Your task to perform on an android device: Open my contact list Image 0: 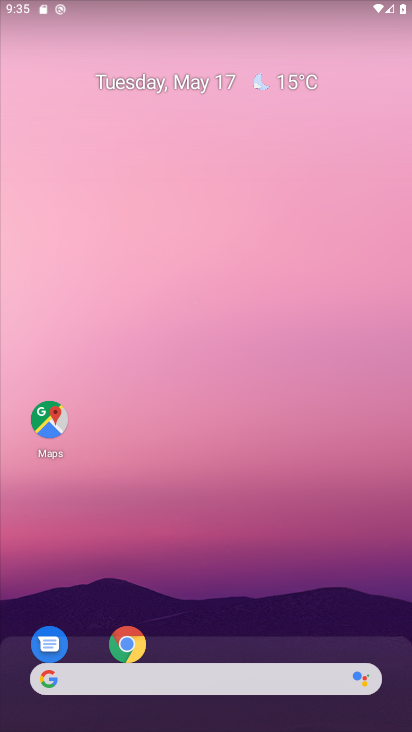
Step 0: drag from (244, 623) to (263, 160)
Your task to perform on an android device: Open my contact list Image 1: 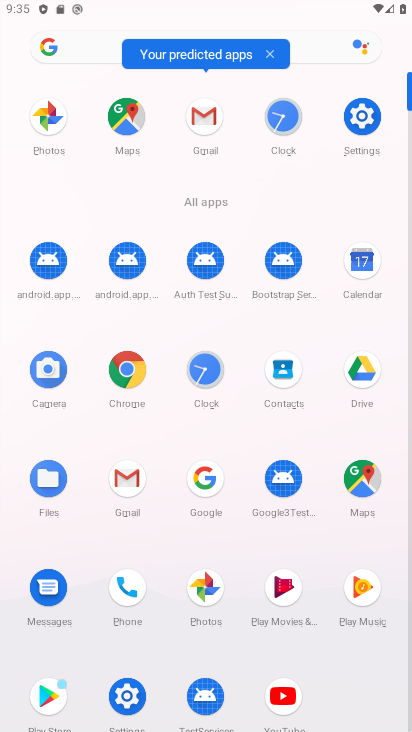
Step 1: click (282, 375)
Your task to perform on an android device: Open my contact list Image 2: 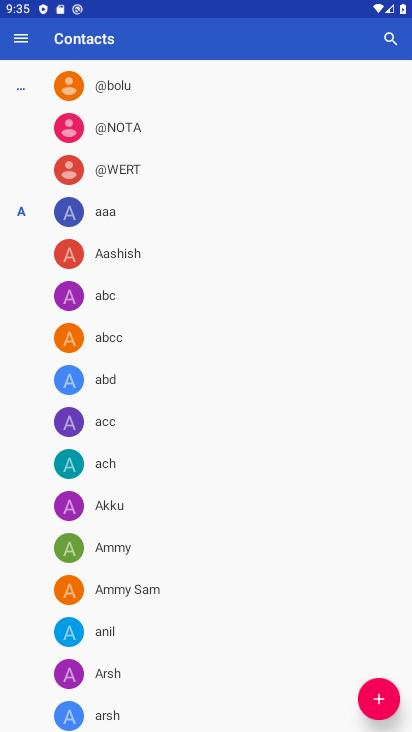
Step 2: task complete